Your task to perform on an android device: turn off sleep mode Image 0: 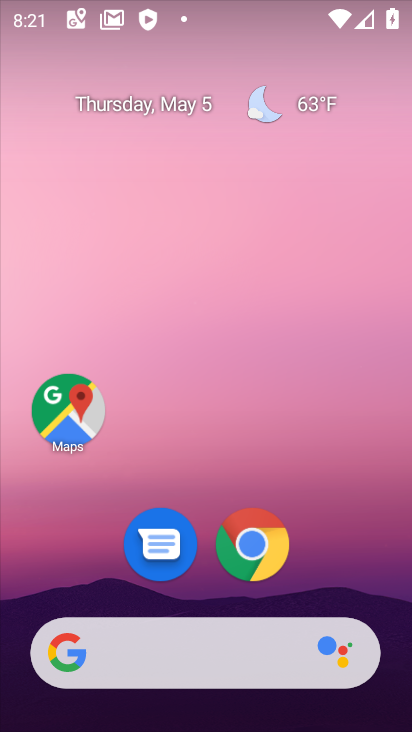
Step 0: drag from (400, 619) to (297, 1)
Your task to perform on an android device: turn off sleep mode Image 1: 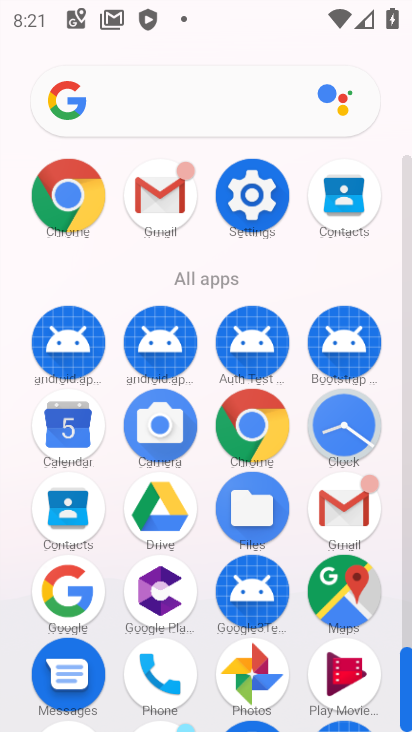
Step 1: click (242, 171)
Your task to perform on an android device: turn off sleep mode Image 2: 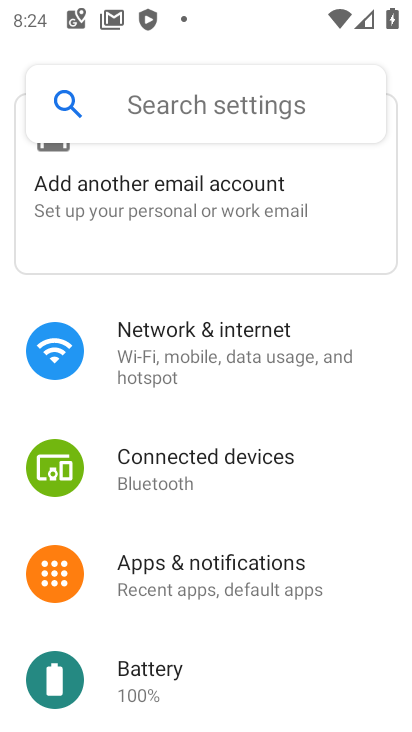
Step 2: task complete